Your task to perform on an android device: Open Reddit.com Image 0: 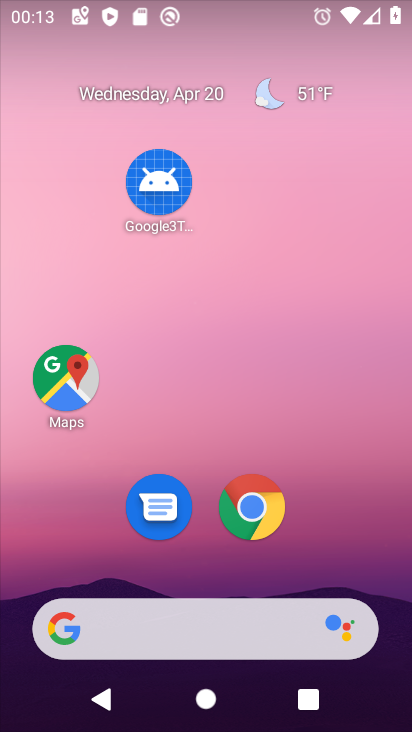
Step 0: drag from (201, 574) to (255, 11)
Your task to perform on an android device: Open Reddit.com Image 1: 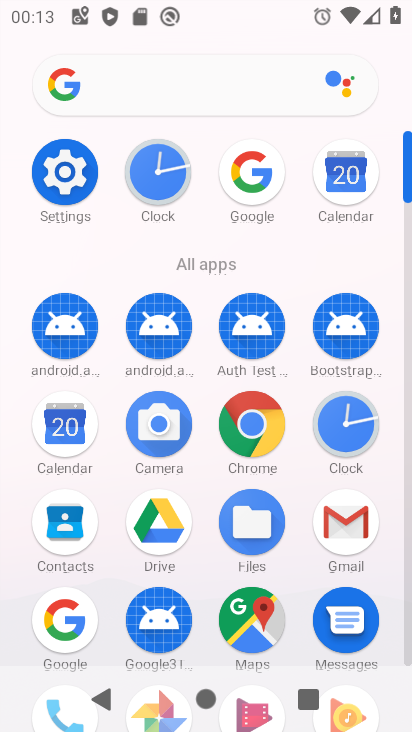
Step 1: click (254, 419)
Your task to perform on an android device: Open Reddit.com Image 2: 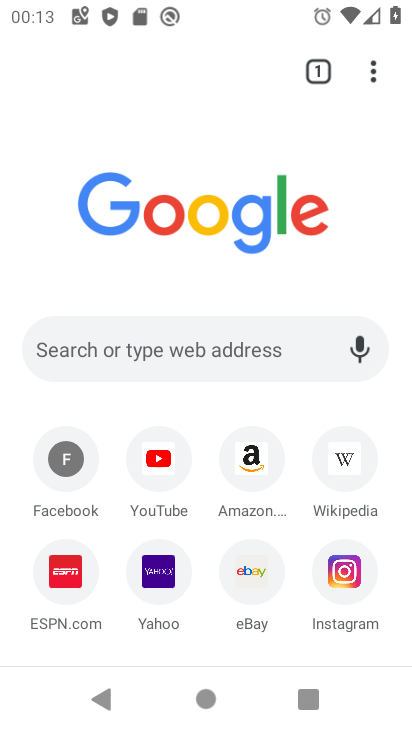
Step 2: click (153, 350)
Your task to perform on an android device: Open Reddit.com Image 3: 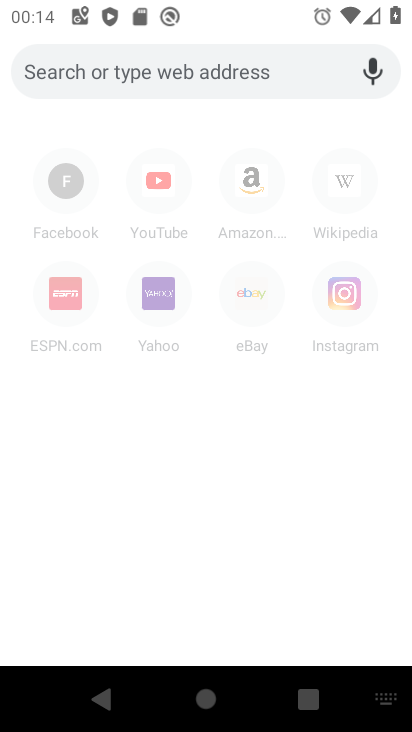
Step 3: type "Reddit.com"
Your task to perform on an android device: Open Reddit.com Image 4: 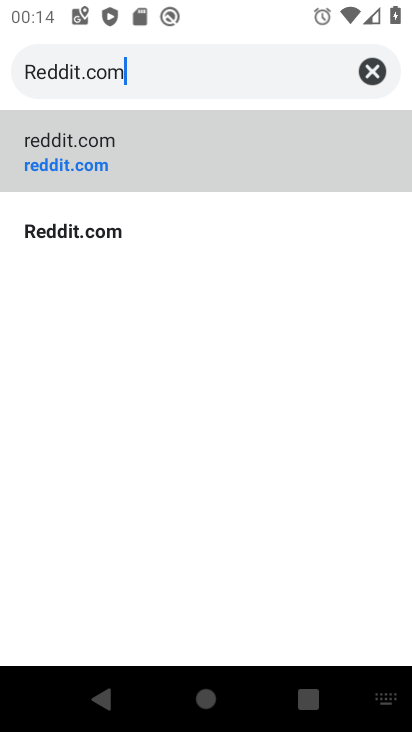
Step 4: type ""
Your task to perform on an android device: Open Reddit.com Image 5: 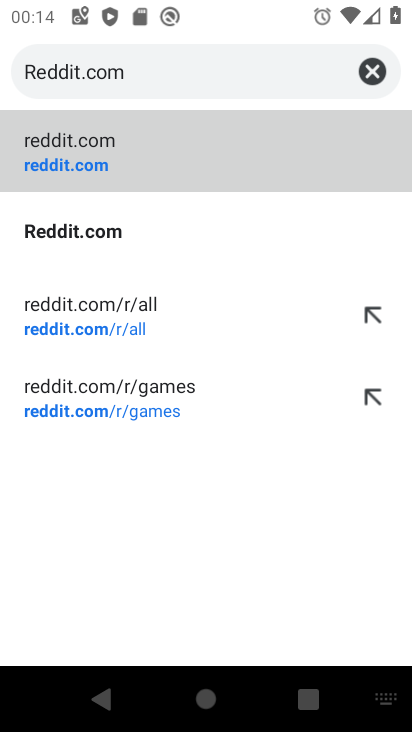
Step 5: click (70, 223)
Your task to perform on an android device: Open Reddit.com Image 6: 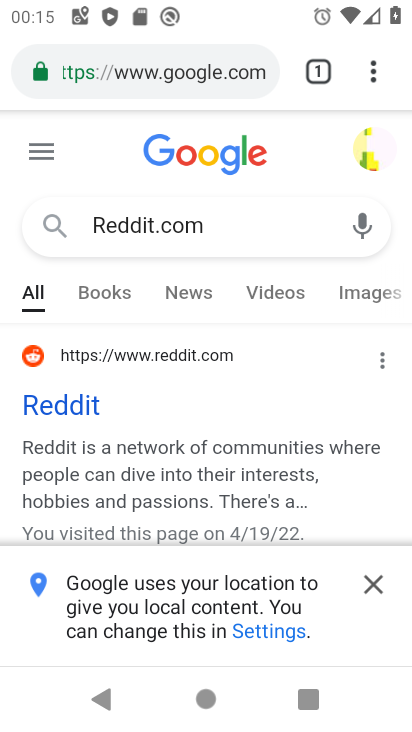
Step 6: task complete